Your task to perform on an android device: toggle airplane mode Image 0: 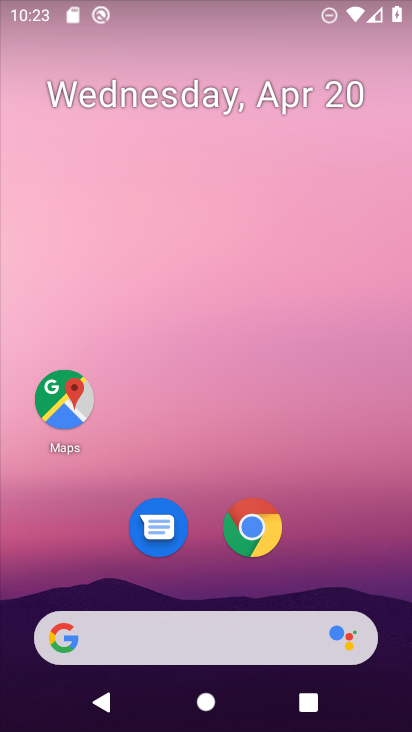
Step 0: drag from (213, 484) to (286, 83)
Your task to perform on an android device: toggle airplane mode Image 1: 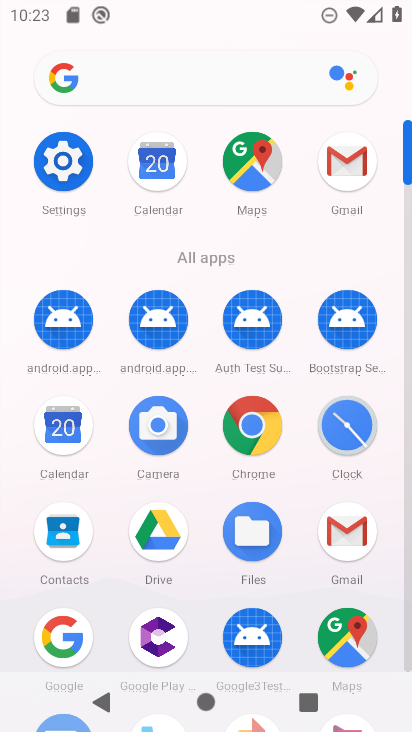
Step 1: click (72, 172)
Your task to perform on an android device: toggle airplane mode Image 2: 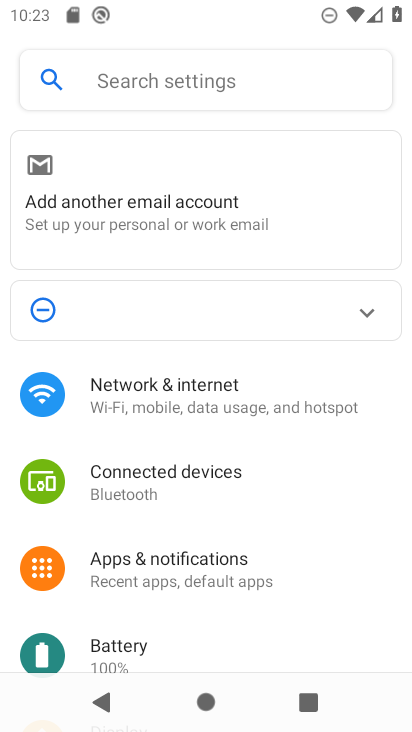
Step 2: click (163, 392)
Your task to perform on an android device: toggle airplane mode Image 3: 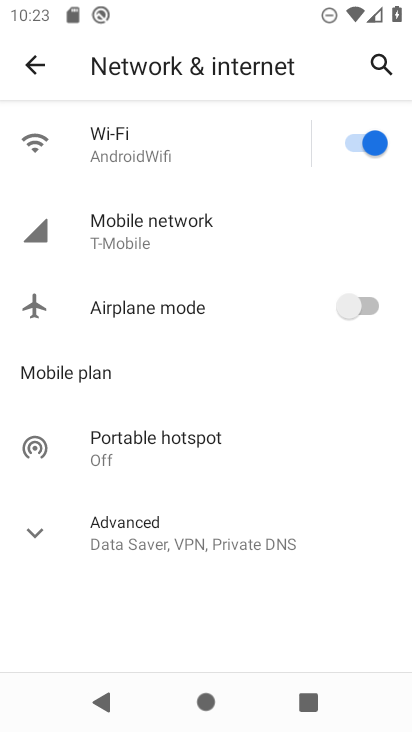
Step 3: click (371, 308)
Your task to perform on an android device: toggle airplane mode Image 4: 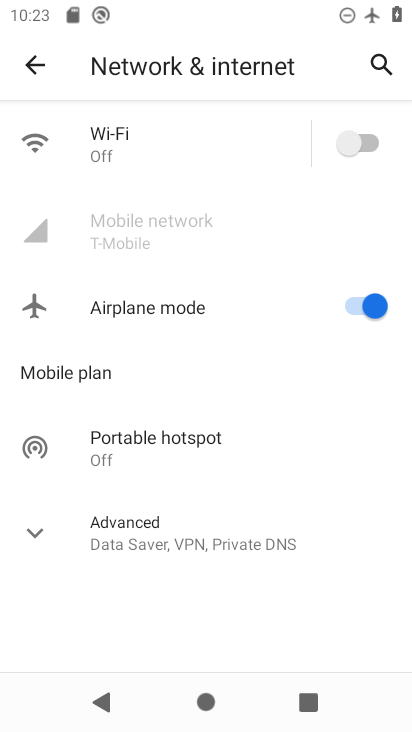
Step 4: task complete